Your task to perform on an android device: Go to display settings Image 0: 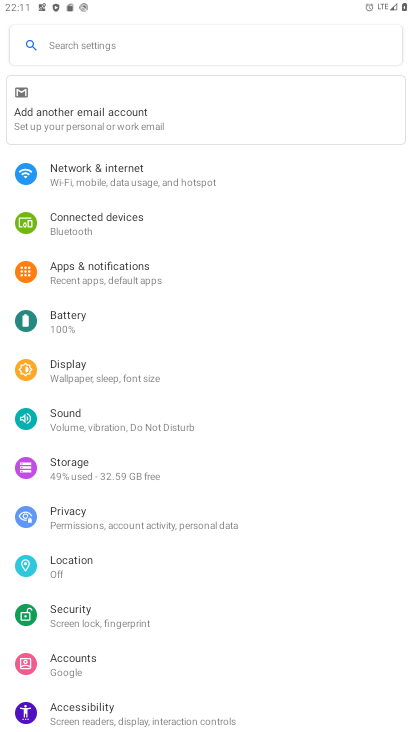
Step 0: click (79, 364)
Your task to perform on an android device: Go to display settings Image 1: 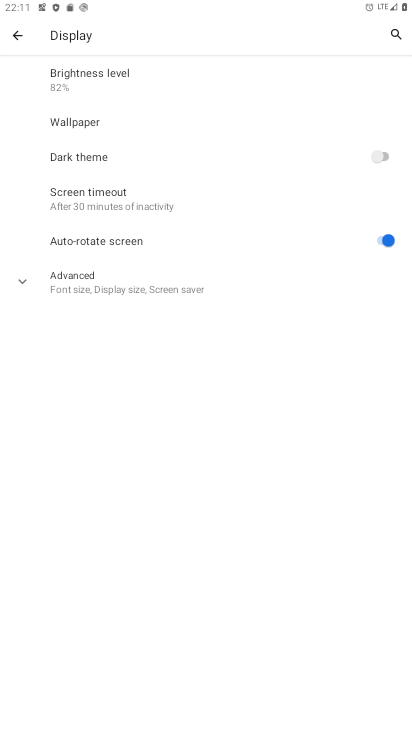
Step 1: task complete